Your task to perform on an android device: Open Google Maps and go to "Timeline" Image 0: 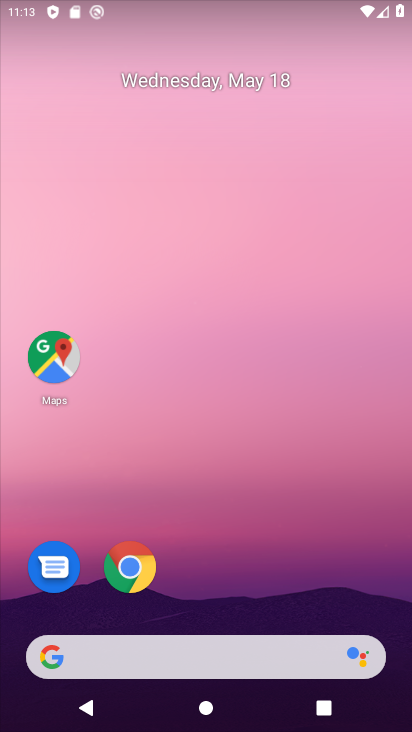
Step 0: drag from (292, 586) to (269, 82)
Your task to perform on an android device: Open Google Maps and go to "Timeline" Image 1: 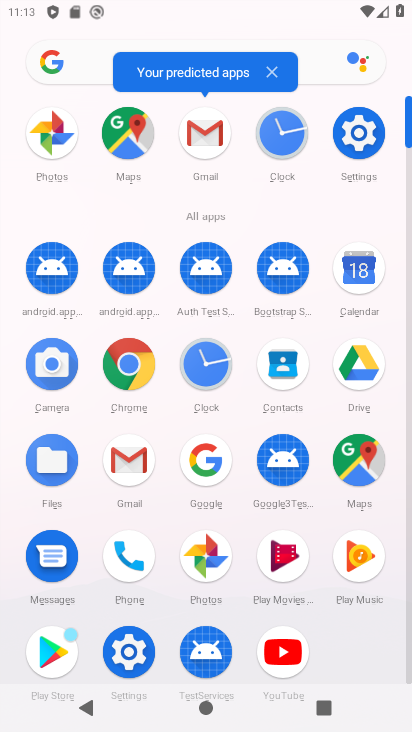
Step 1: click (134, 127)
Your task to perform on an android device: Open Google Maps and go to "Timeline" Image 2: 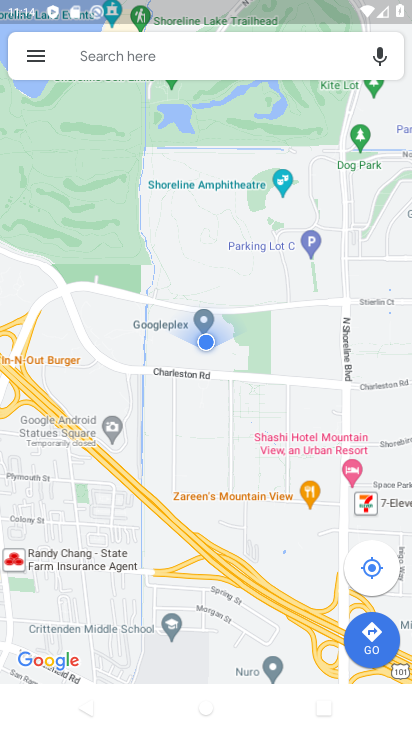
Step 2: click (39, 53)
Your task to perform on an android device: Open Google Maps and go to "Timeline" Image 3: 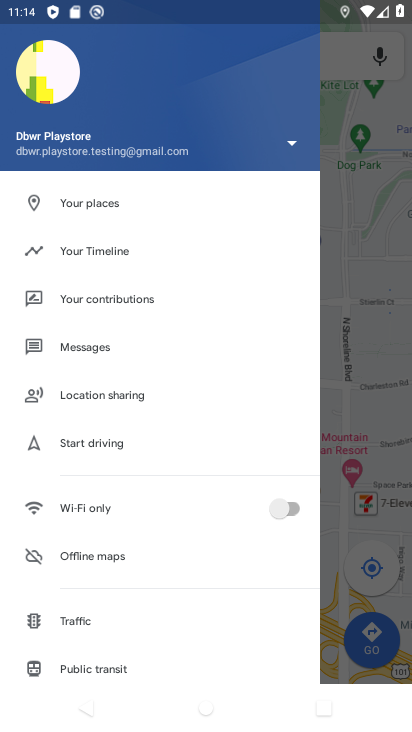
Step 3: click (99, 253)
Your task to perform on an android device: Open Google Maps and go to "Timeline" Image 4: 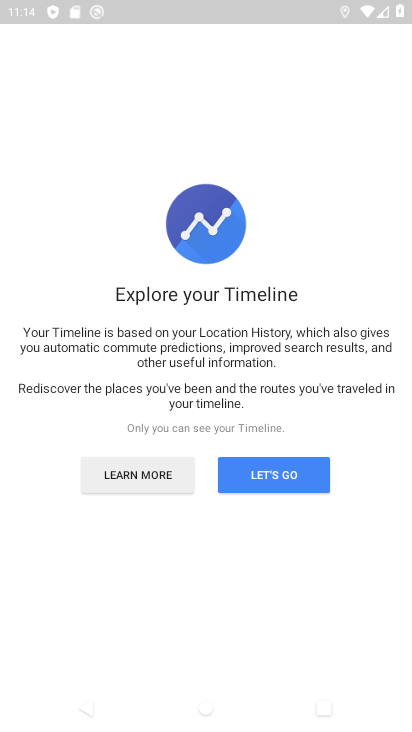
Step 4: click (293, 468)
Your task to perform on an android device: Open Google Maps and go to "Timeline" Image 5: 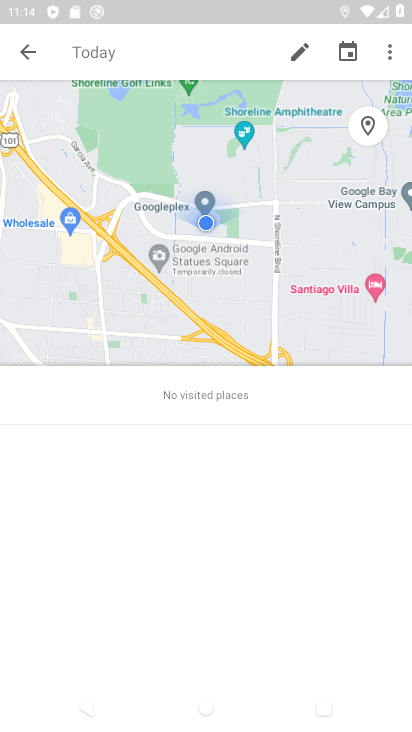
Step 5: task complete